Your task to perform on an android device: Open calendar and show me the first week of next month Image 0: 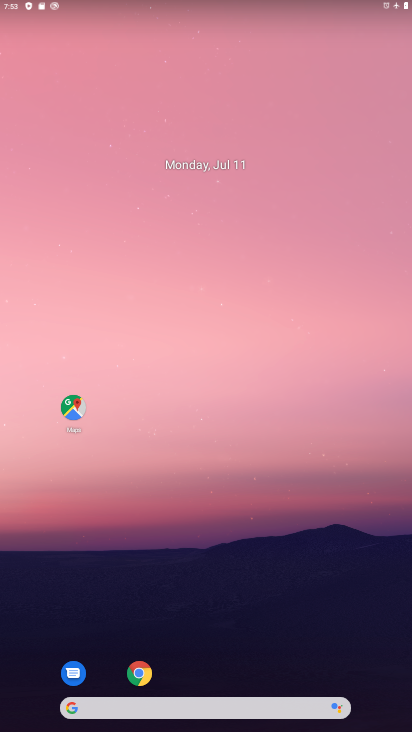
Step 0: drag from (342, 621) to (358, 91)
Your task to perform on an android device: Open calendar and show me the first week of next month Image 1: 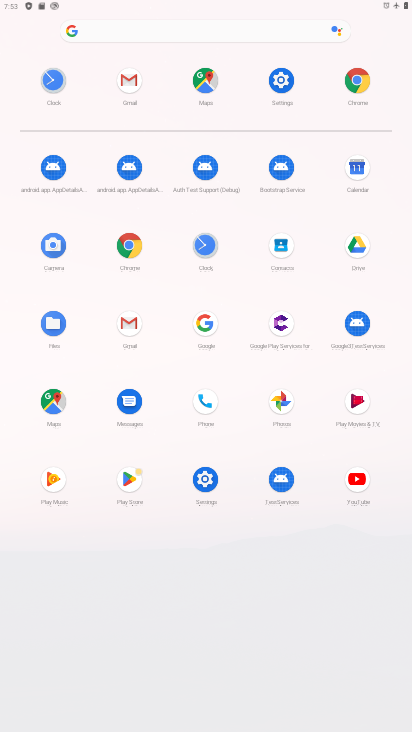
Step 1: click (363, 165)
Your task to perform on an android device: Open calendar and show me the first week of next month Image 2: 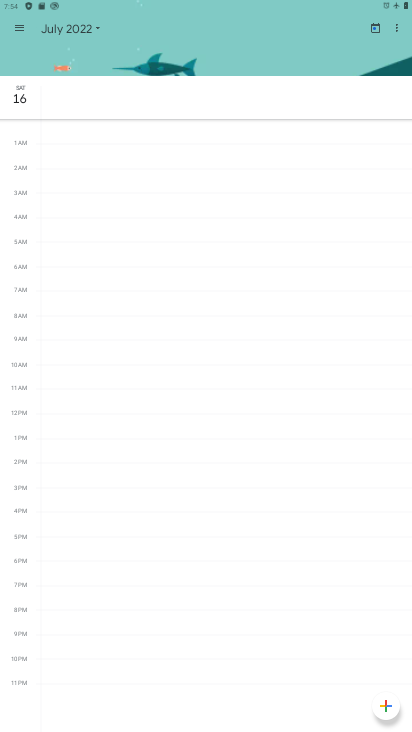
Step 2: click (58, 33)
Your task to perform on an android device: Open calendar and show me the first week of next month Image 3: 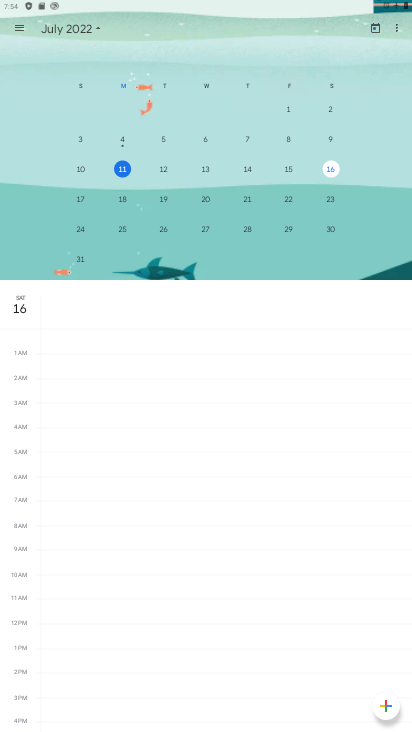
Step 3: drag from (322, 183) to (90, 139)
Your task to perform on an android device: Open calendar and show me the first week of next month Image 4: 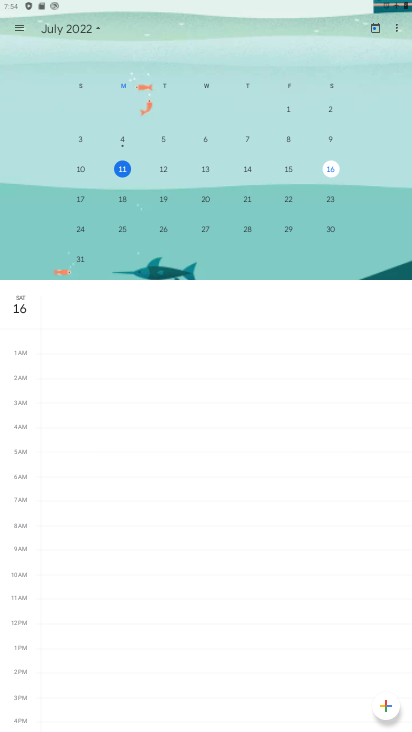
Step 4: drag from (337, 137) to (83, 143)
Your task to perform on an android device: Open calendar and show me the first week of next month Image 5: 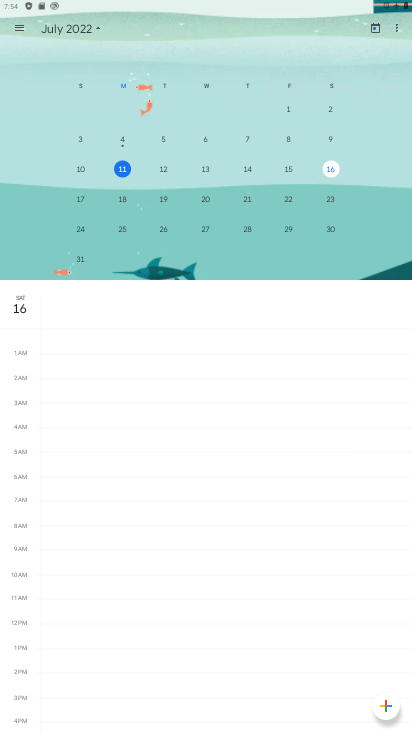
Step 5: drag from (328, 136) to (35, 176)
Your task to perform on an android device: Open calendar and show me the first week of next month Image 6: 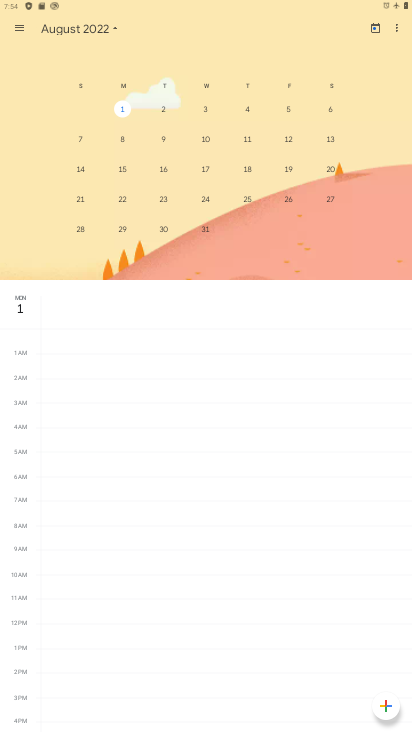
Step 6: click (122, 107)
Your task to perform on an android device: Open calendar and show me the first week of next month Image 7: 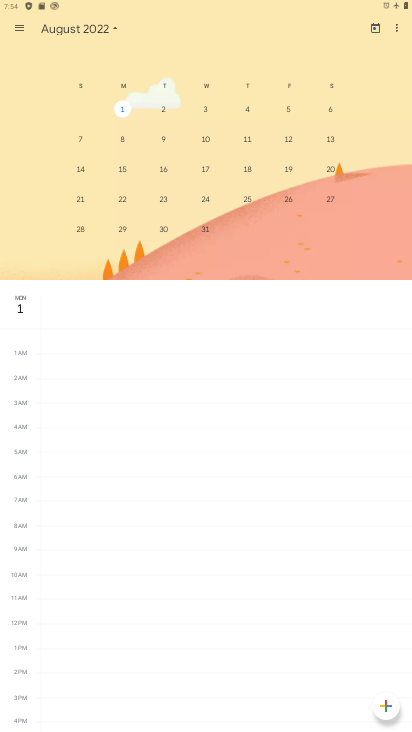
Step 7: click (25, 32)
Your task to perform on an android device: Open calendar and show me the first week of next month Image 8: 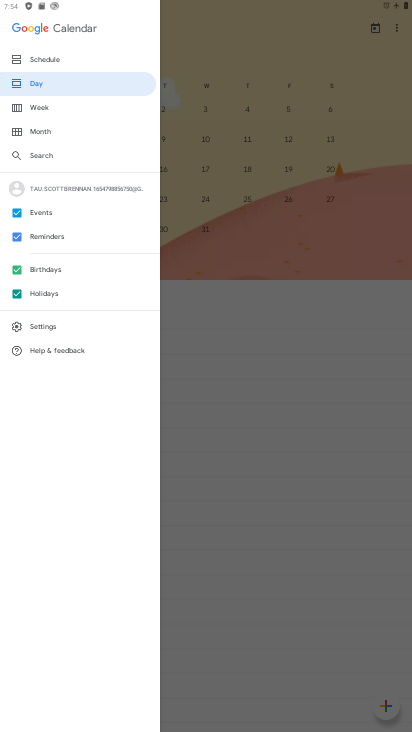
Step 8: click (50, 106)
Your task to perform on an android device: Open calendar and show me the first week of next month Image 9: 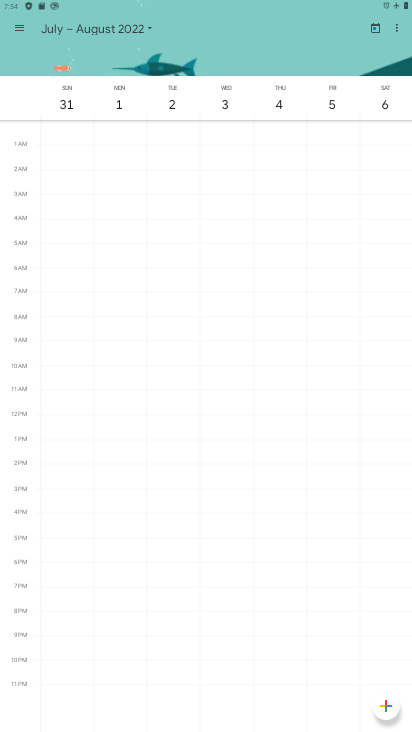
Step 9: task complete